Your task to perform on an android device: Open calendar and show me the second week of next month Image 0: 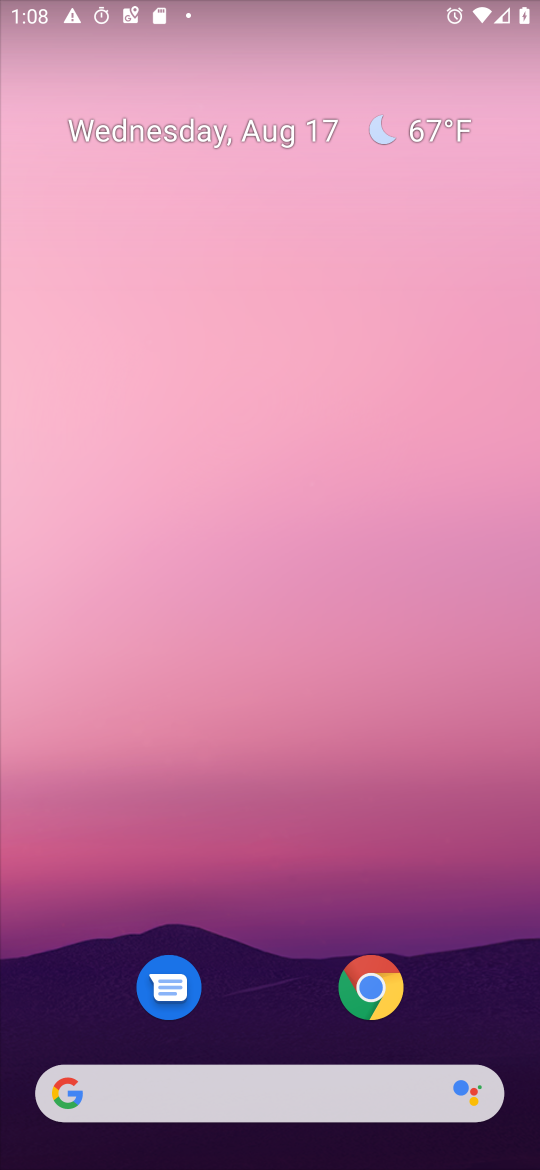
Step 0: drag from (30, 1128) to (329, 475)
Your task to perform on an android device: Open calendar and show me the second week of next month Image 1: 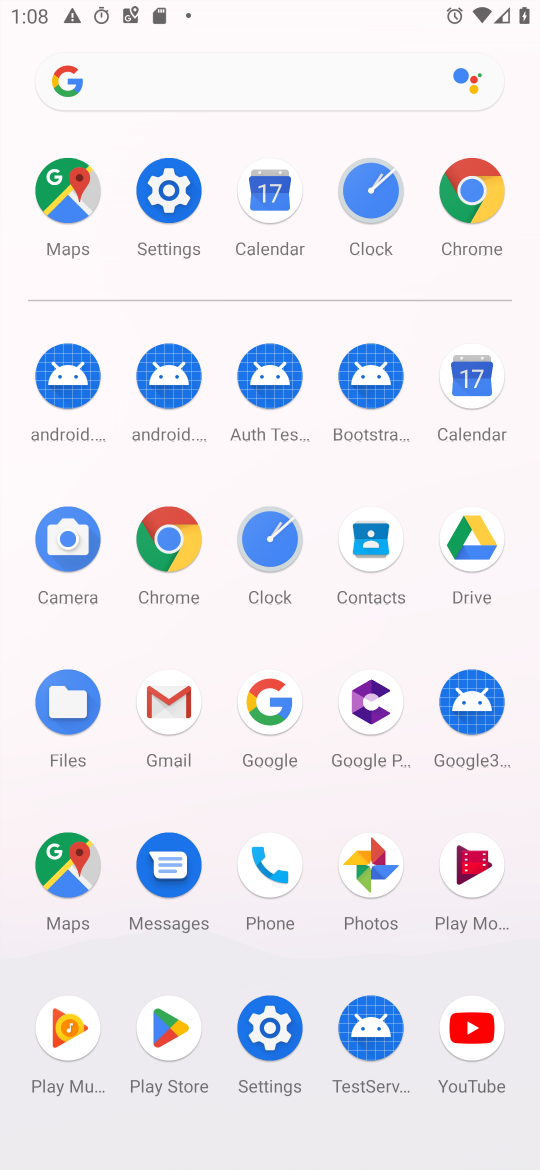
Step 1: click (473, 368)
Your task to perform on an android device: Open calendar and show me the second week of next month Image 2: 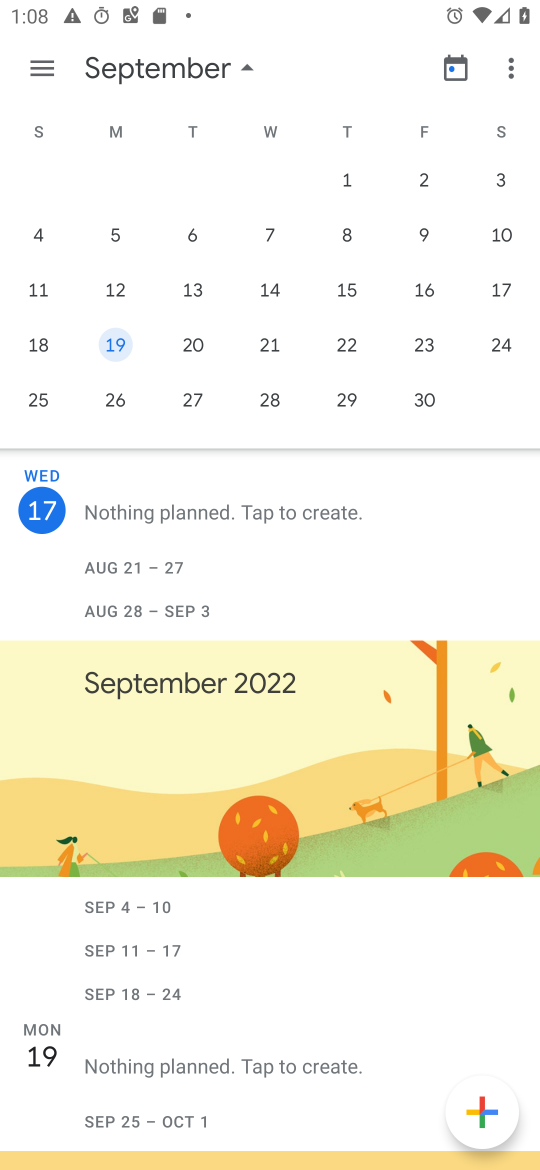
Step 2: click (125, 229)
Your task to perform on an android device: Open calendar and show me the second week of next month Image 3: 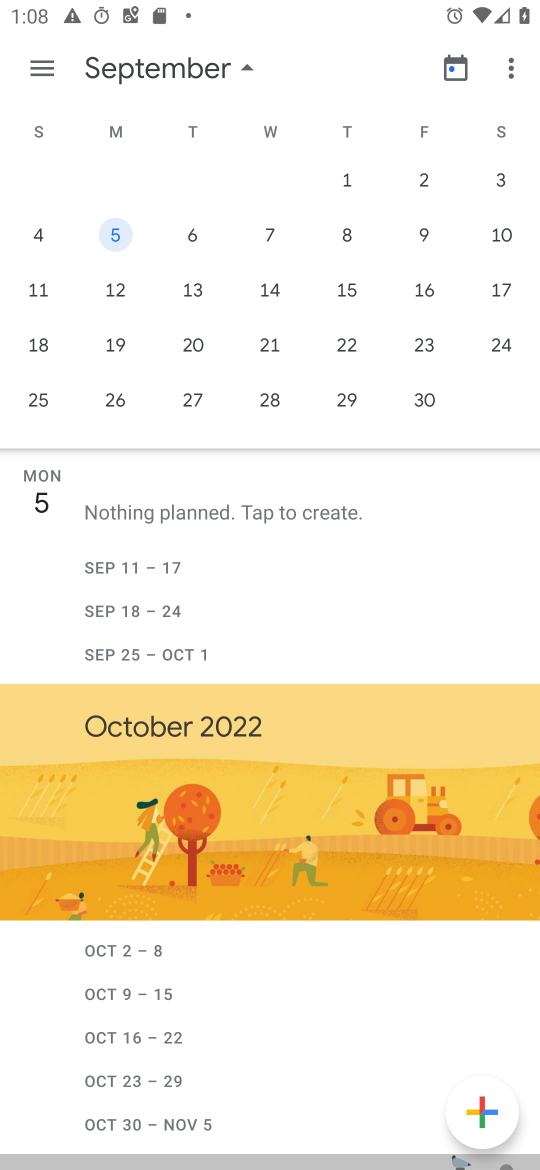
Step 3: task complete